Your task to perform on an android device: Search for Mexican restaurants on Maps Image 0: 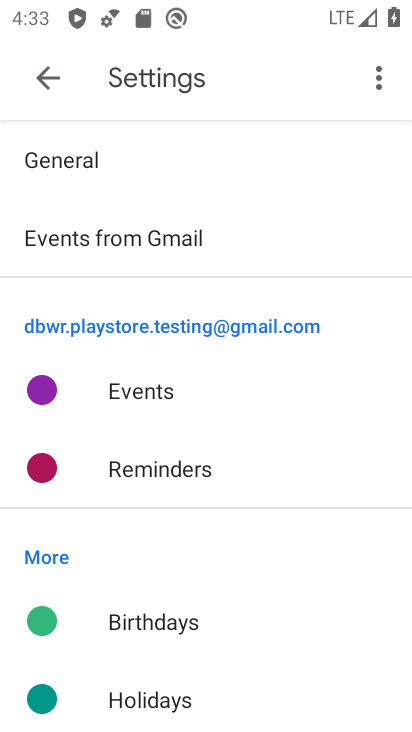
Step 0: press home button
Your task to perform on an android device: Search for Mexican restaurants on Maps Image 1: 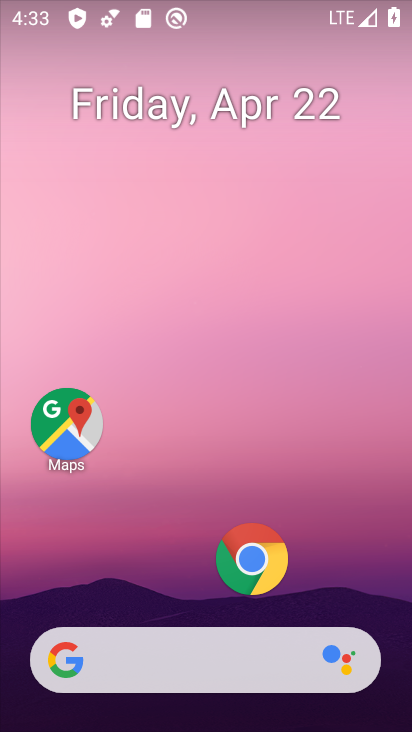
Step 1: click (74, 404)
Your task to perform on an android device: Search for Mexican restaurants on Maps Image 2: 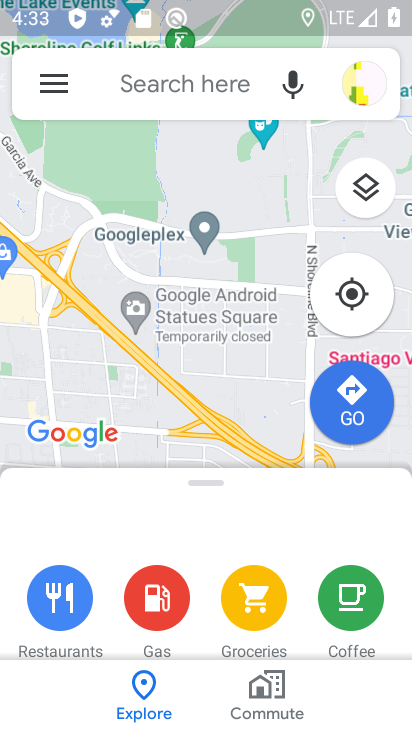
Step 2: click (162, 73)
Your task to perform on an android device: Search for Mexican restaurants on Maps Image 3: 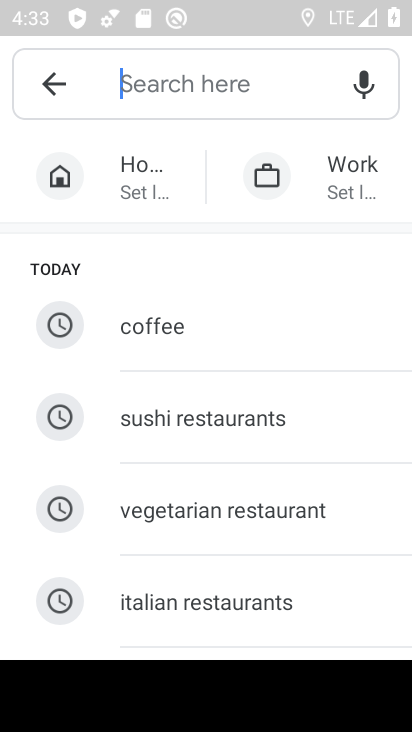
Step 3: type "mexican restaurants"
Your task to perform on an android device: Search for Mexican restaurants on Maps Image 4: 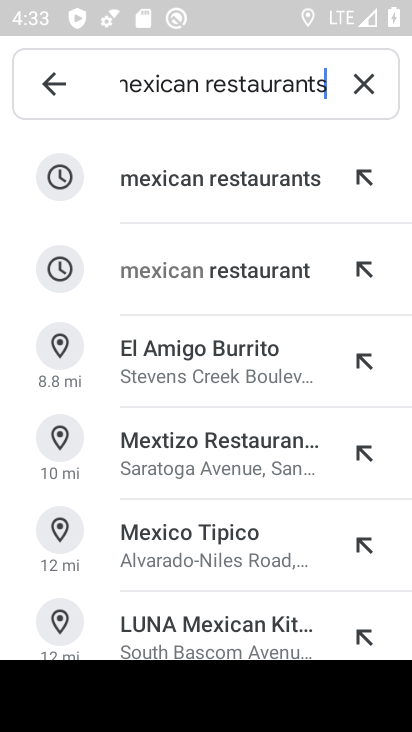
Step 4: click (172, 179)
Your task to perform on an android device: Search for Mexican restaurants on Maps Image 5: 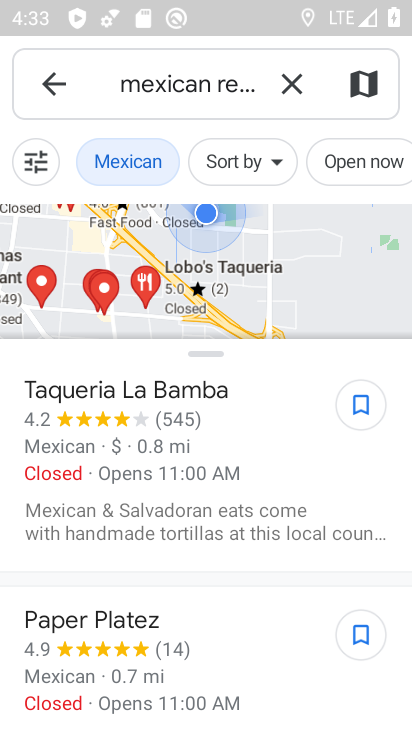
Step 5: task complete